Your task to perform on an android device: stop showing notifications on the lock screen Image 0: 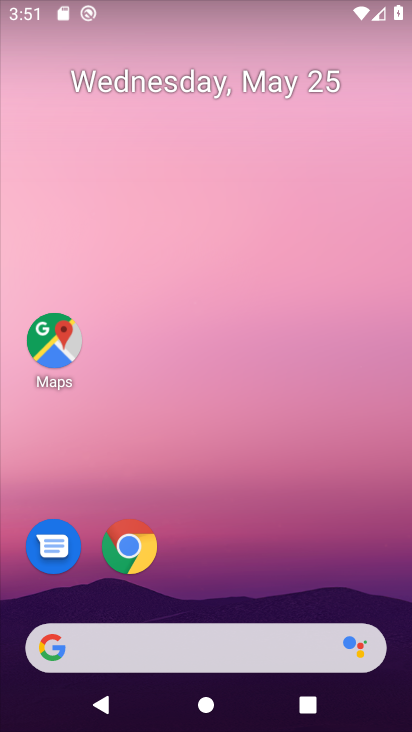
Step 0: drag from (205, 572) to (142, 211)
Your task to perform on an android device: stop showing notifications on the lock screen Image 1: 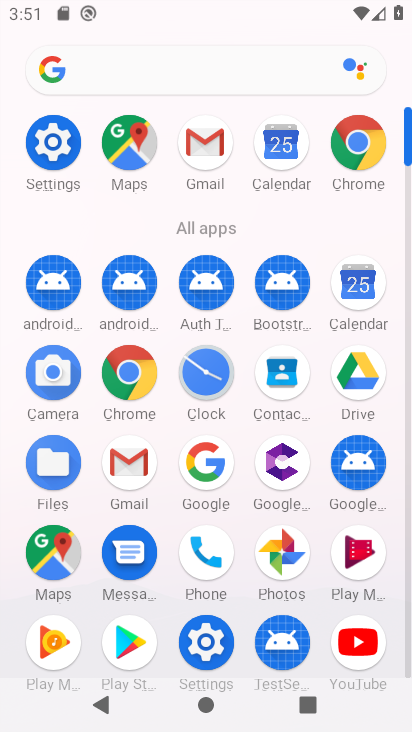
Step 1: click (60, 154)
Your task to perform on an android device: stop showing notifications on the lock screen Image 2: 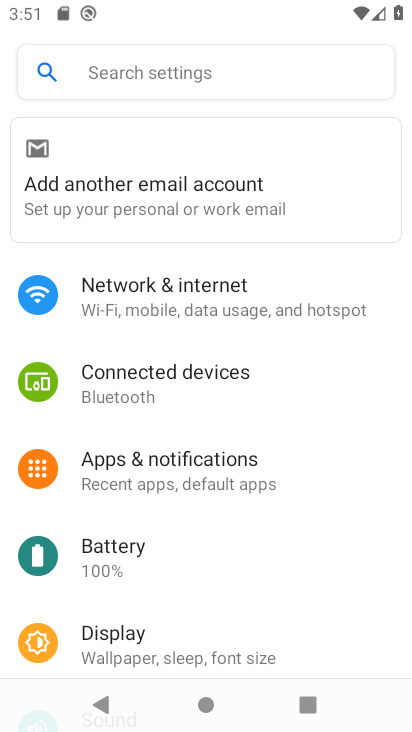
Step 2: click (123, 458)
Your task to perform on an android device: stop showing notifications on the lock screen Image 3: 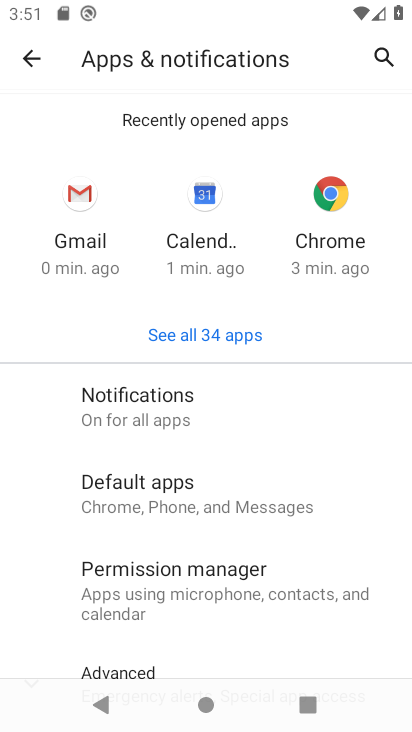
Step 3: click (150, 408)
Your task to perform on an android device: stop showing notifications on the lock screen Image 4: 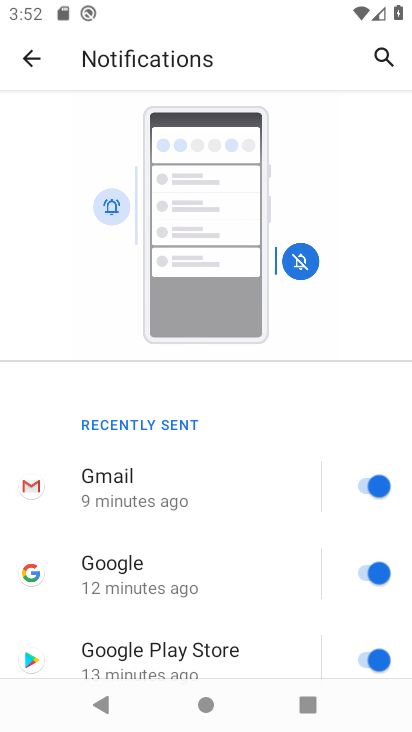
Step 4: drag from (220, 623) to (184, 150)
Your task to perform on an android device: stop showing notifications on the lock screen Image 5: 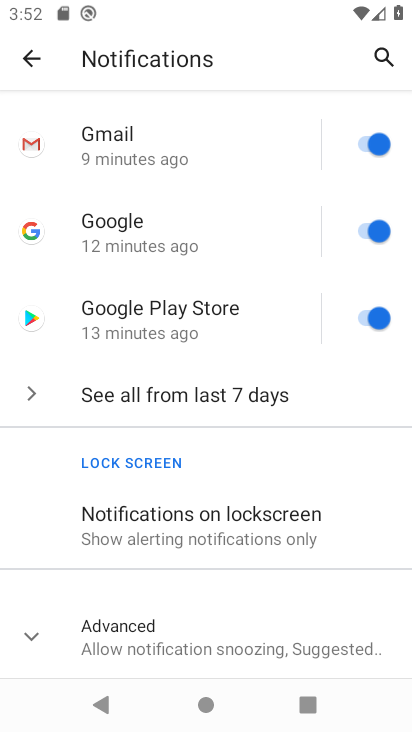
Step 5: click (241, 548)
Your task to perform on an android device: stop showing notifications on the lock screen Image 6: 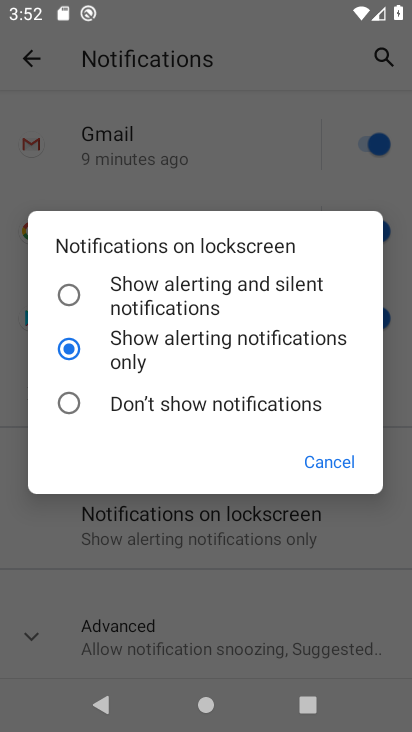
Step 6: click (235, 409)
Your task to perform on an android device: stop showing notifications on the lock screen Image 7: 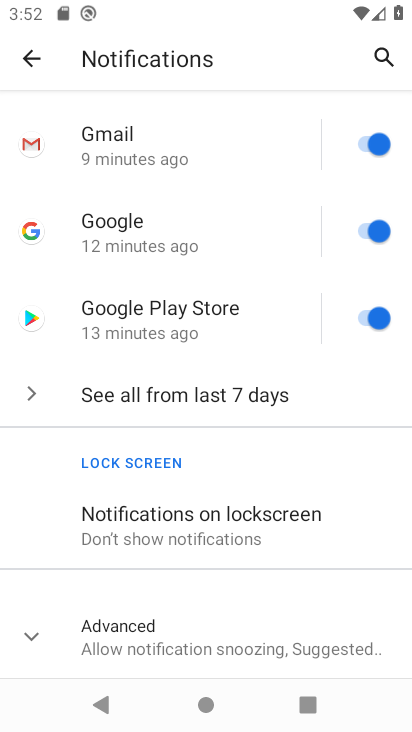
Step 7: task complete